Your task to perform on an android device: install app "Lyft - Rideshare, Bikes, Scooters & Transit" Image 0: 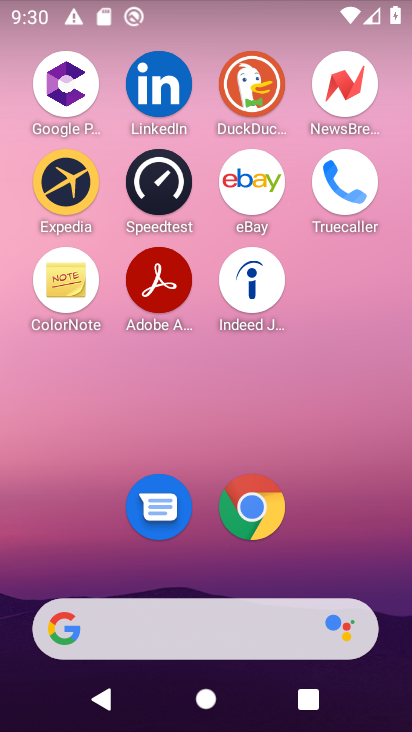
Step 0: drag from (241, 633) to (304, 121)
Your task to perform on an android device: install app "Lyft - Rideshare, Bikes, Scooters & Transit" Image 1: 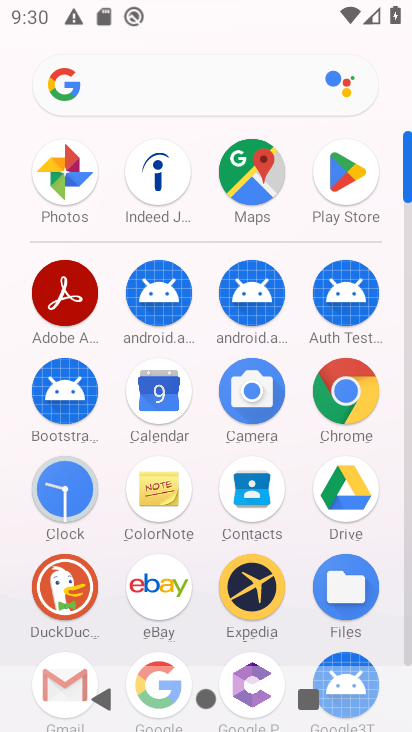
Step 1: drag from (195, 555) to (204, 356)
Your task to perform on an android device: install app "Lyft - Rideshare, Bikes, Scooters & Transit" Image 2: 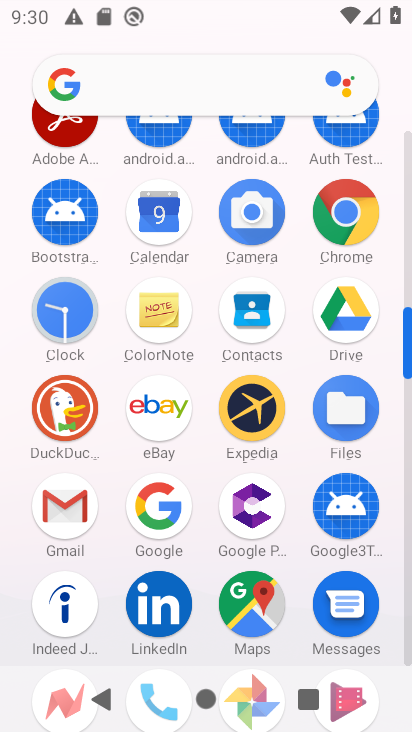
Step 2: drag from (301, 286) to (292, 526)
Your task to perform on an android device: install app "Lyft - Rideshare, Bikes, Scooters & Transit" Image 3: 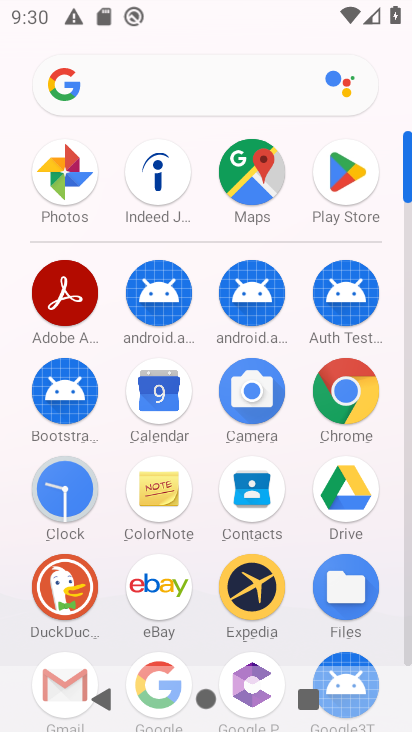
Step 3: click (344, 185)
Your task to perform on an android device: install app "Lyft - Rideshare, Bikes, Scooters & Transit" Image 4: 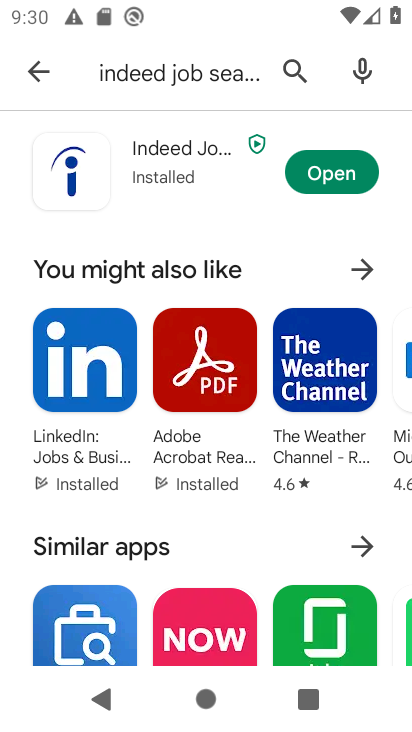
Step 4: click (291, 73)
Your task to perform on an android device: install app "Lyft - Rideshare, Bikes, Scooters & Transit" Image 5: 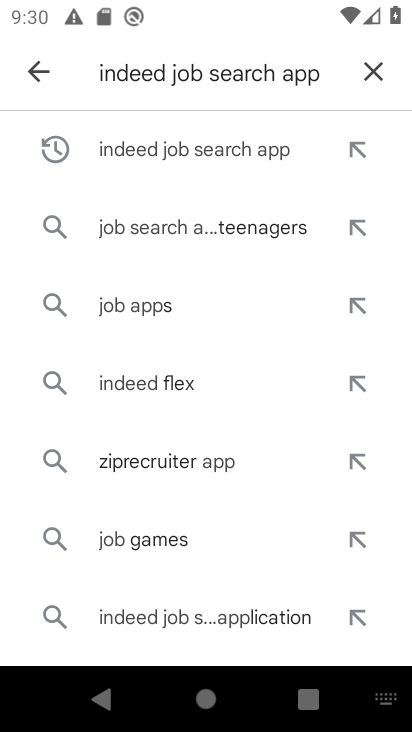
Step 5: click (374, 68)
Your task to perform on an android device: install app "Lyft - Rideshare, Bikes, Scooters & Transit" Image 6: 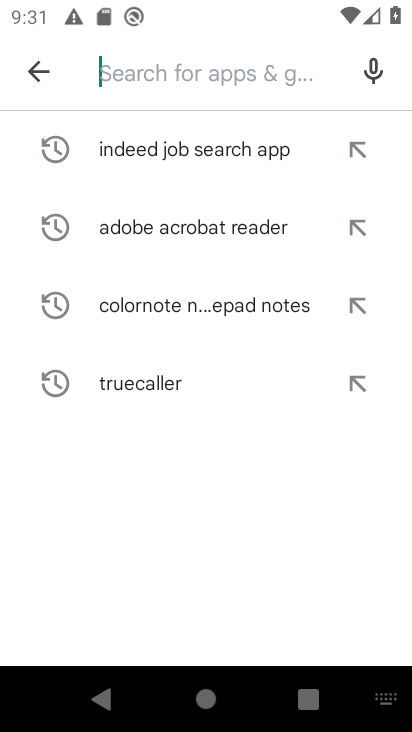
Step 6: type "Lyft - Rideshare, Bikes, Scooters & Transit"
Your task to perform on an android device: install app "Lyft - Rideshare, Bikes, Scooters & Transit" Image 7: 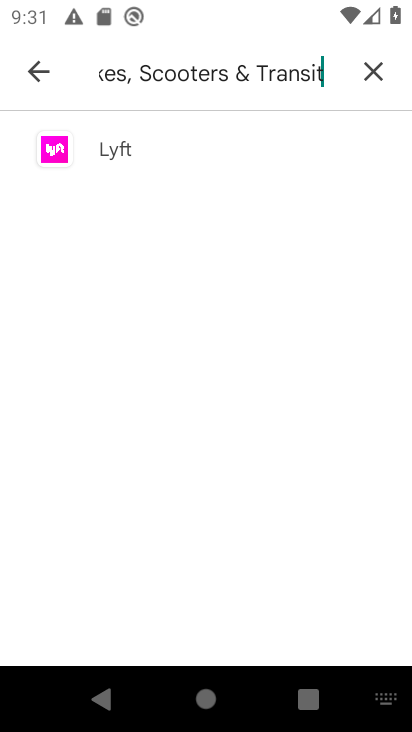
Step 7: click (121, 158)
Your task to perform on an android device: install app "Lyft - Rideshare, Bikes, Scooters & Transit" Image 8: 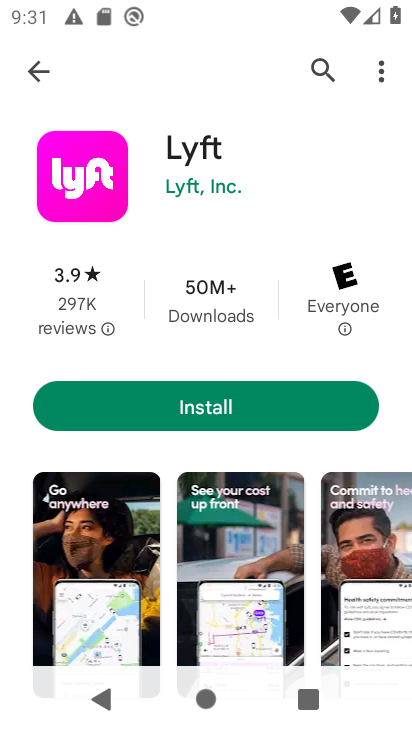
Step 8: click (225, 415)
Your task to perform on an android device: install app "Lyft - Rideshare, Bikes, Scooters & Transit" Image 9: 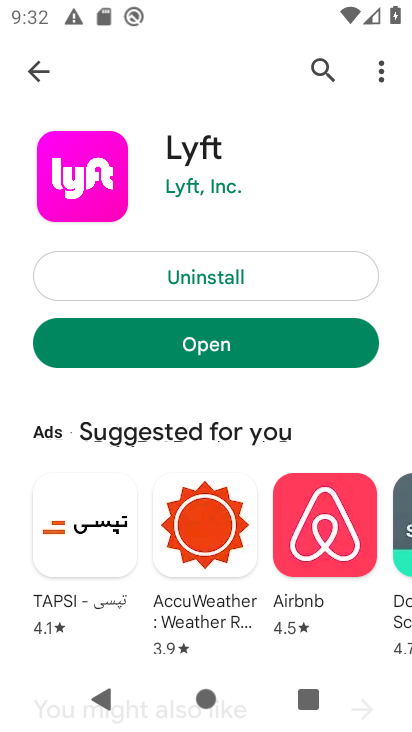
Step 9: task complete